Your task to perform on an android device: Open Android settings Image 0: 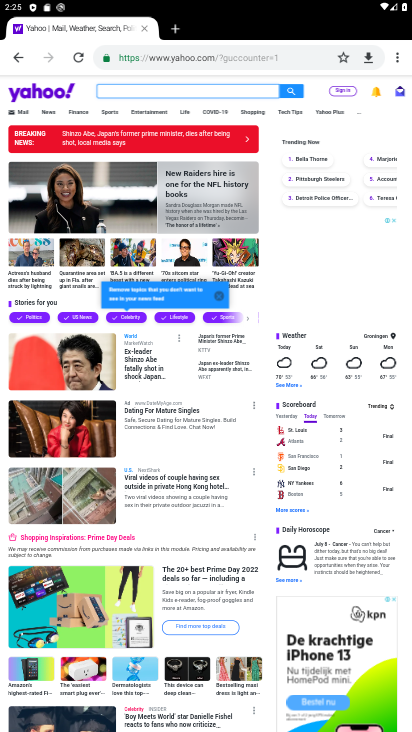
Step 0: press home button
Your task to perform on an android device: Open Android settings Image 1: 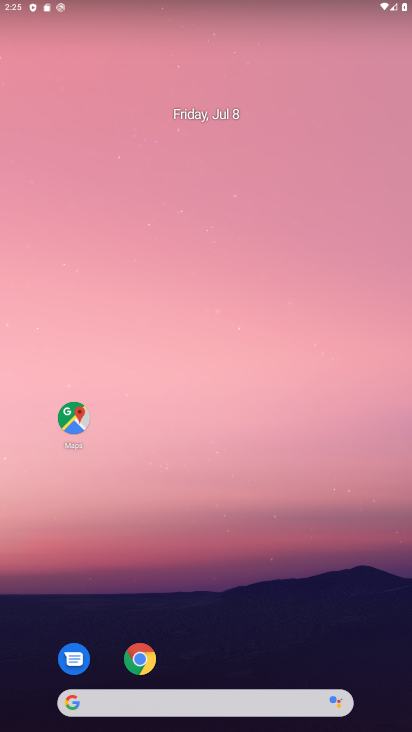
Step 1: drag from (219, 667) to (221, 36)
Your task to perform on an android device: Open Android settings Image 2: 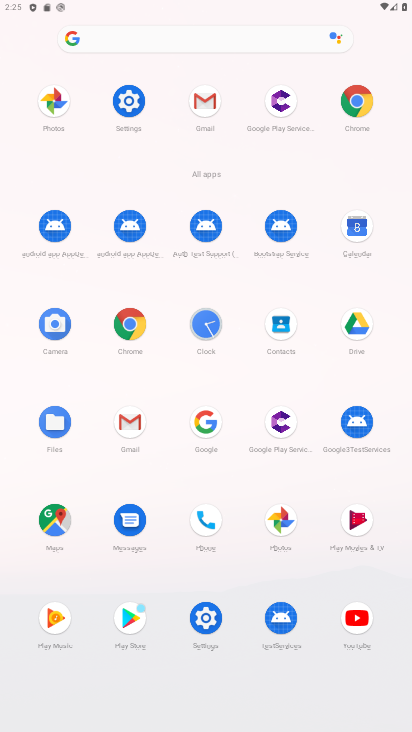
Step 2: click (125, 101)
Your task to perform on an android device: Open Android settings Image 3: 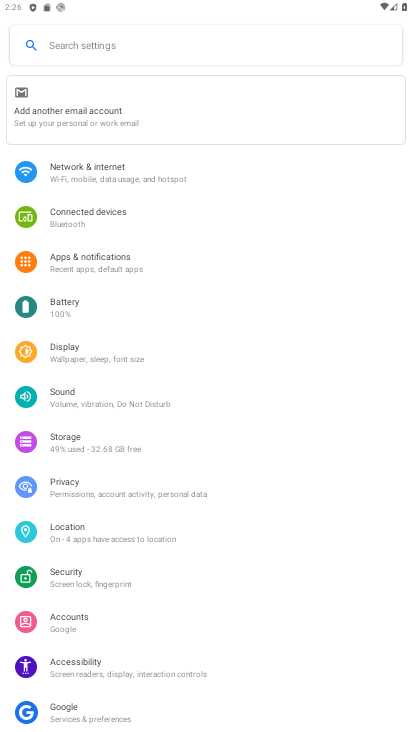
Step 3: drag from (125, 677) to (149, 130)
Your task to perform on an android device: Open Android settings Image 4: 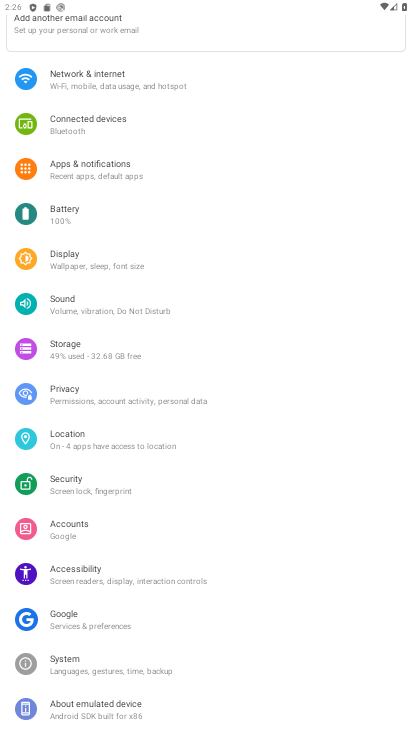
Step 4: click (127, 709)
Your task to perform on an android device: Open Android settings Image 5: 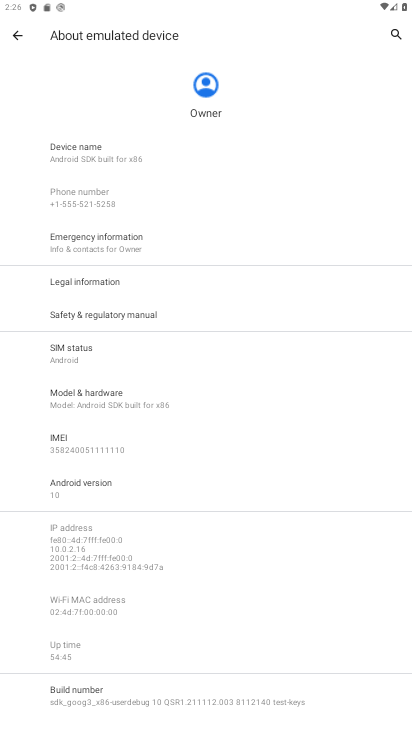
Step 5: task complete